Your task to perform on an android device: Search for razer huntsman on target.com, select the first entry, add it to the cart, then select checkout. Image 0: 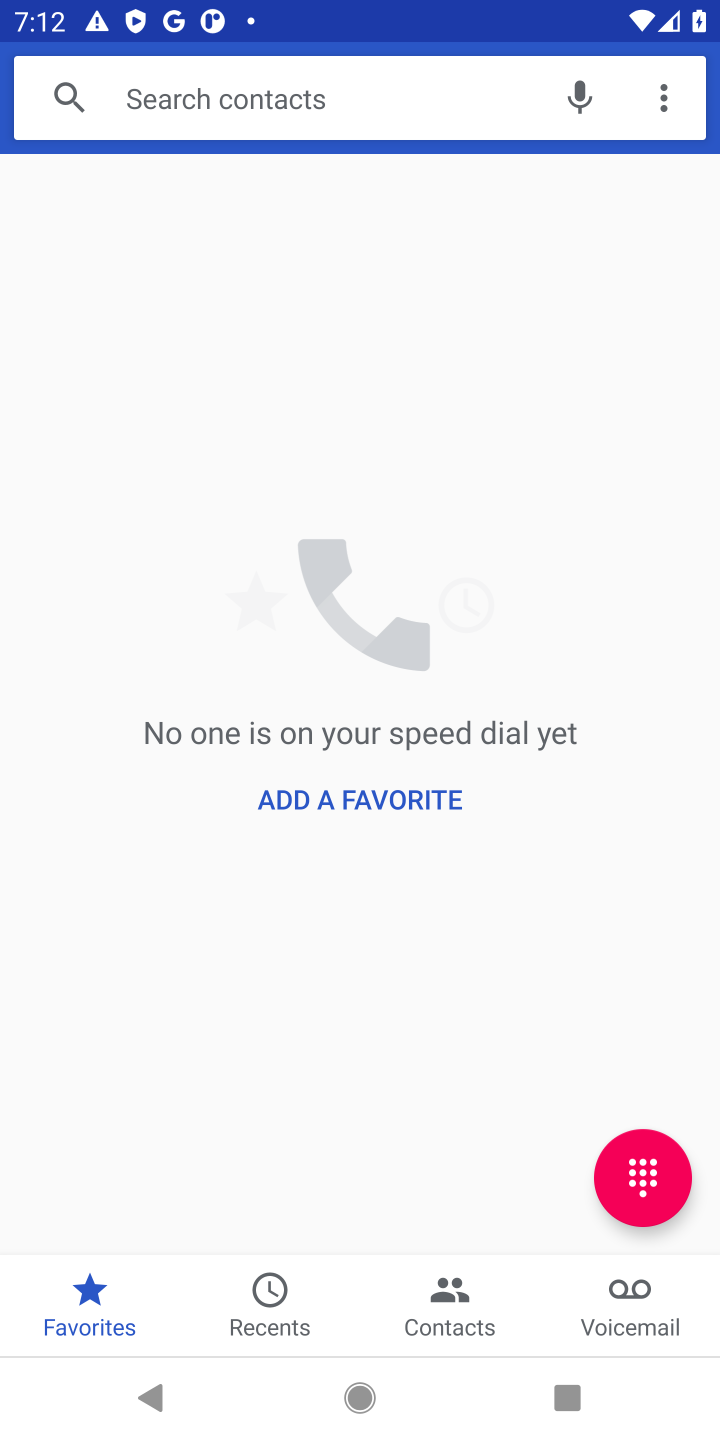
Step 0: press home button
Your task to perform on an android device: Search for razer huntsman on target.com, select the first entry, add it to the cart, then select checkout. Image 1: 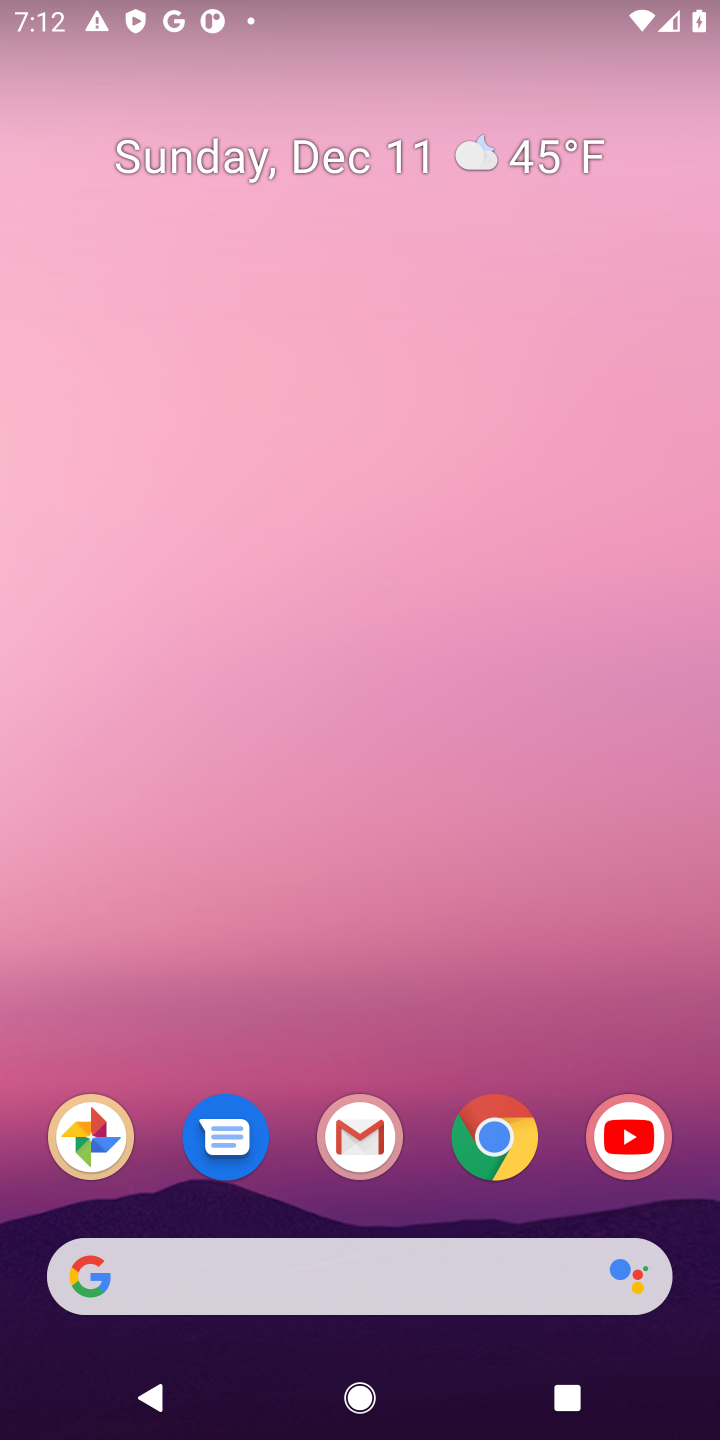
Step 1: click (469, 1155)
Your task to perform on an android device: Search for razer huntsman on target.com, select the first entry, add it to the cart, then select checkout. Image 2: 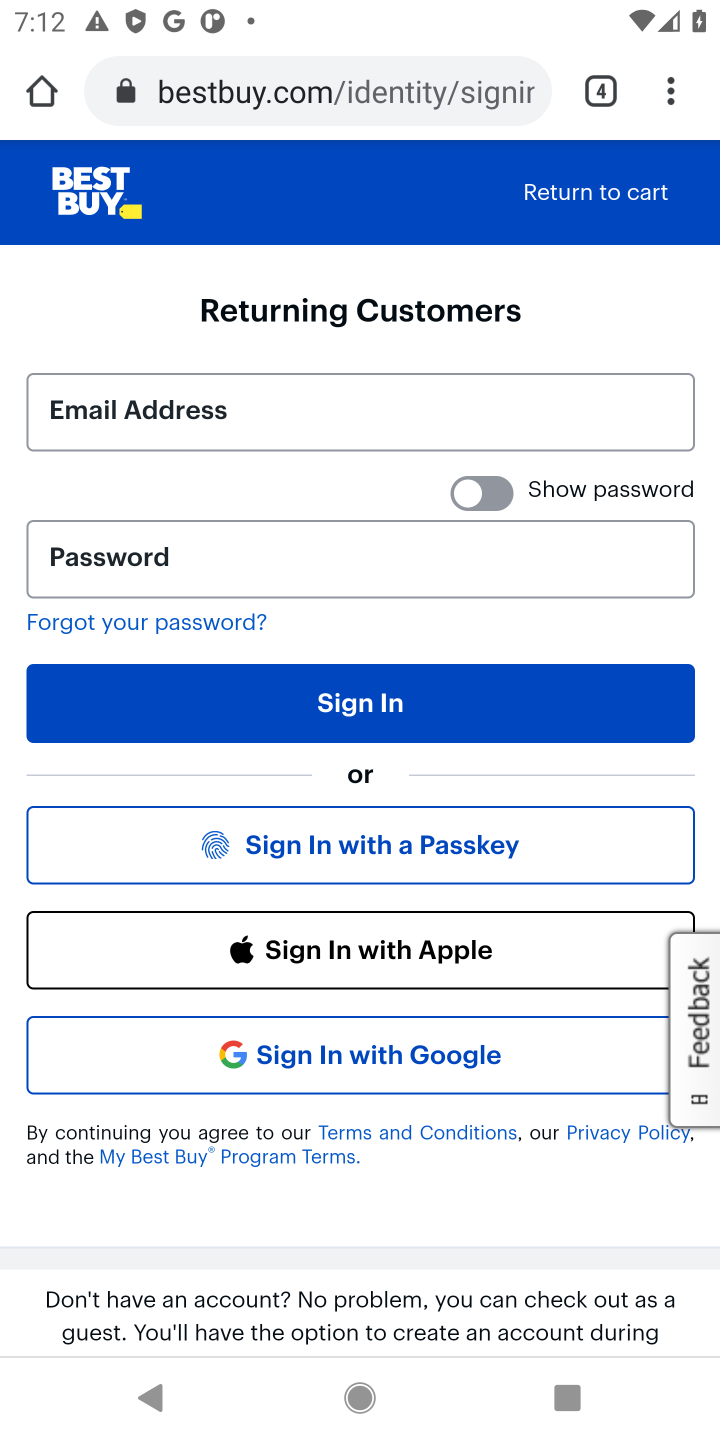
Step 2: click (246, 106)
Your task to perform on an android device: Search for razer huntsman on target.com, select the first entry, add it to the cart, then select checkout. Image 3: 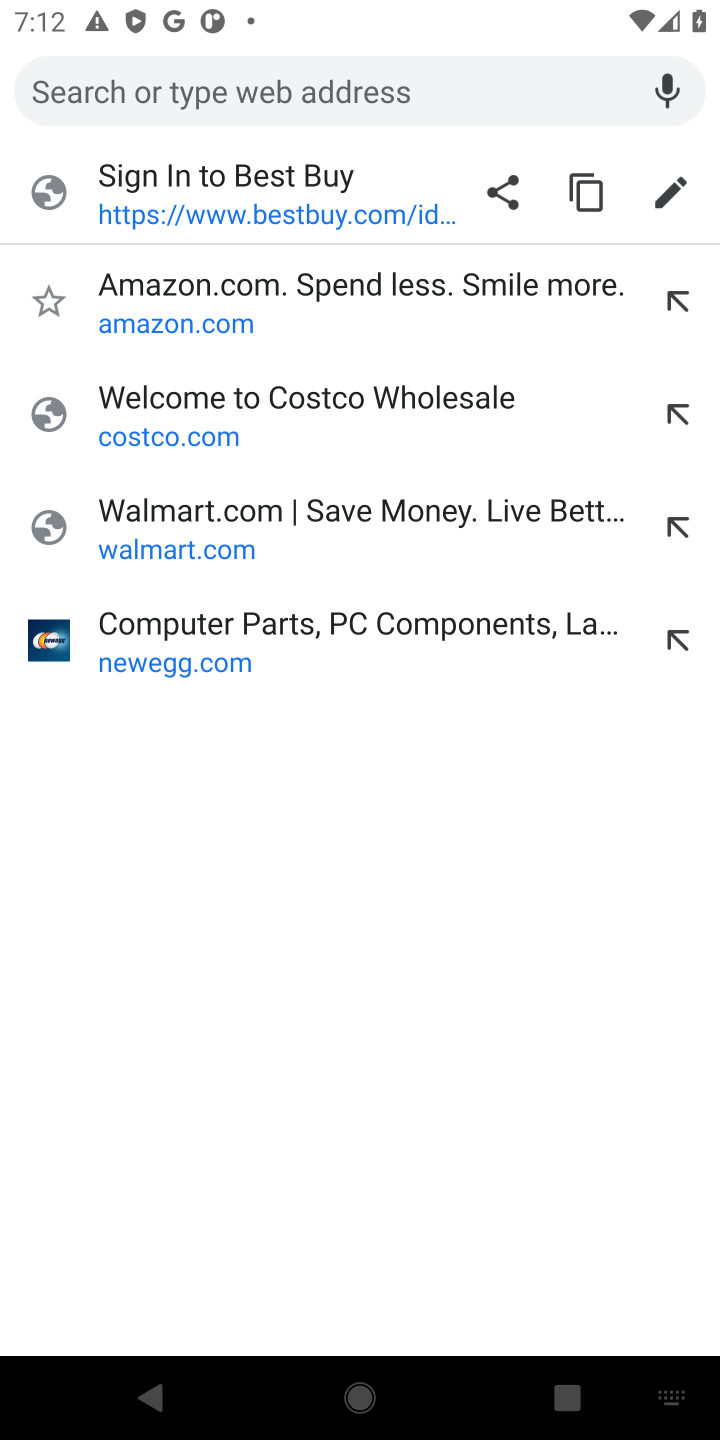
Step 3: type "target"
Your task to perform on an android device: Search for razer huntsman on target.com, select the first entry, add it to the cart, then select checkout. Image 4: 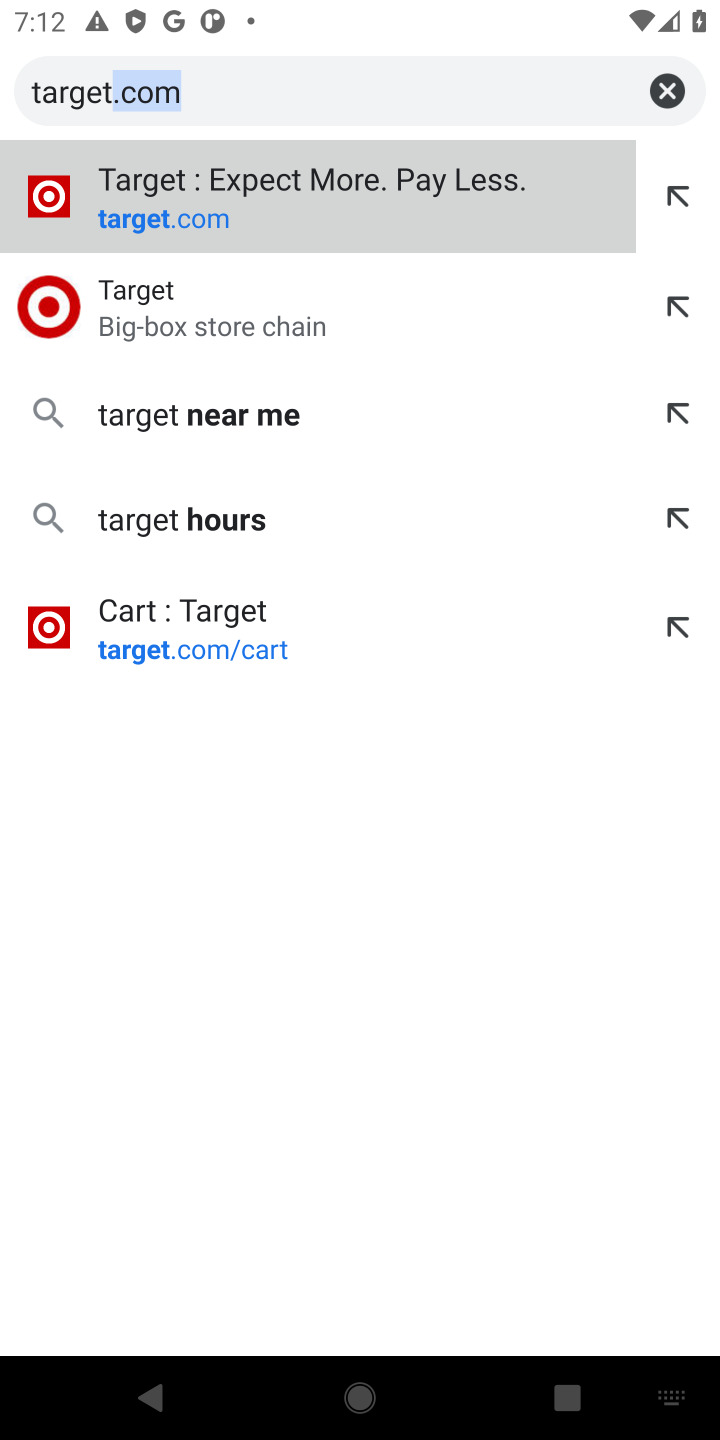
Step 4: click (527, 206)
Your task to perform on an android device: Search for razer huntsman on target.com, select the first entry, add it to the cart, then select checkout. Image 5: 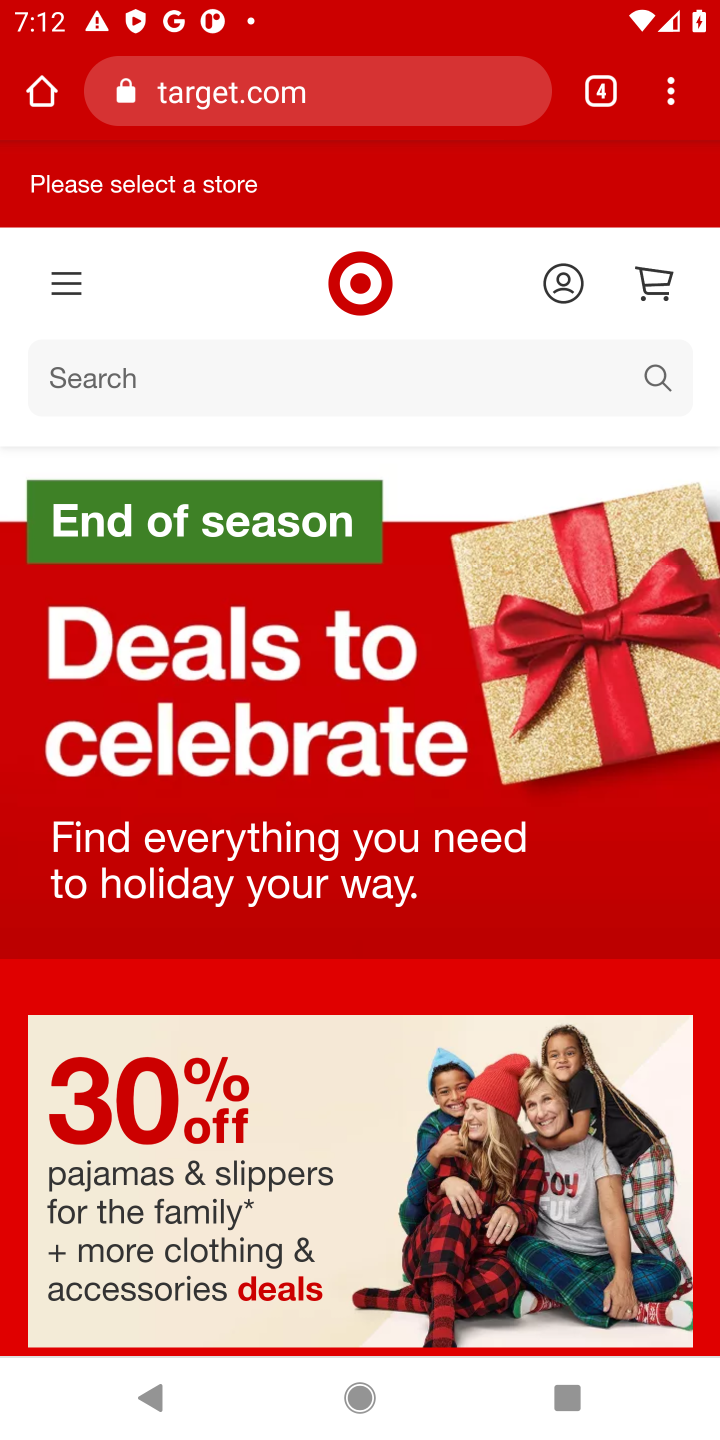
Step 5: click (399, 355)
Your task to perform on an android device: Search for razer huntsman on target.com, select the first entry, add it to the cart, then select checkout. Image 6: 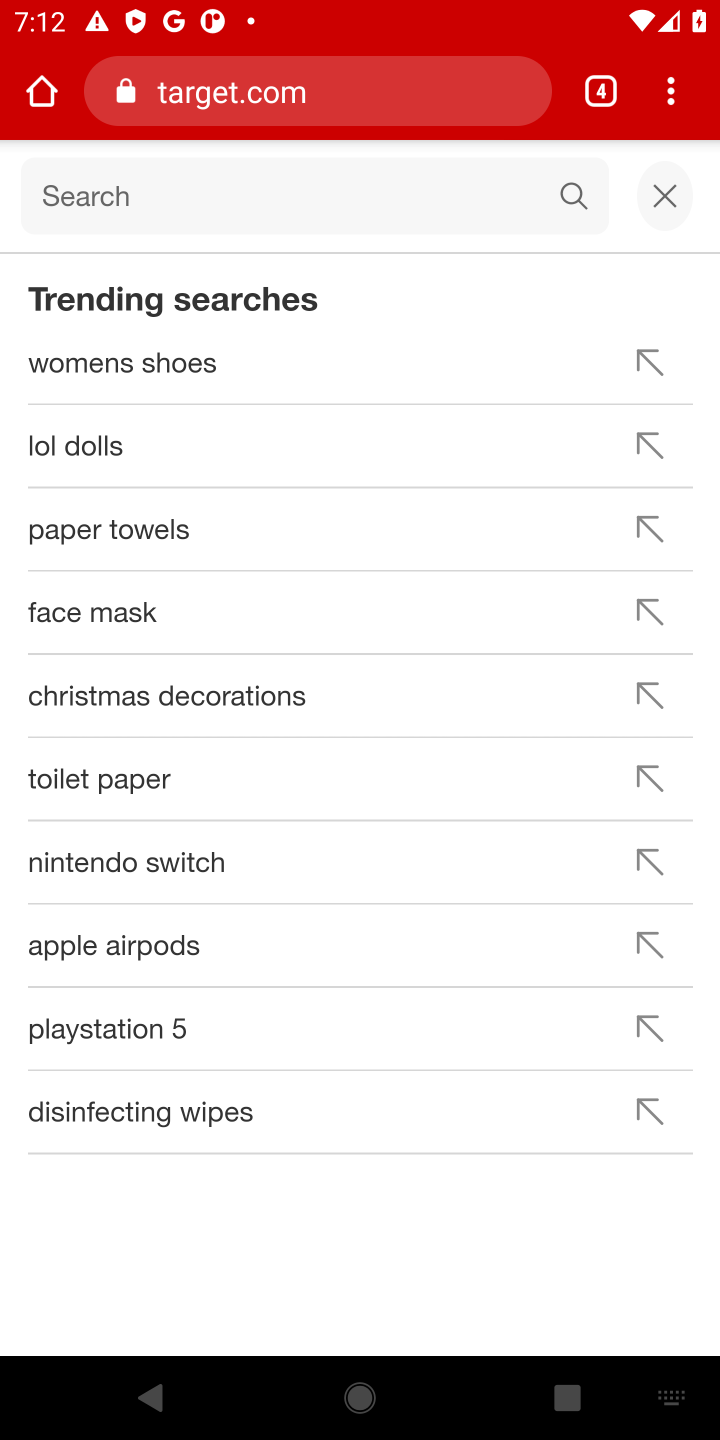
Step 6: type " razer huntsman"
Your task to perform on an android device: Search for razer huntsman on target.com, select the first entry, add it to the cart, then select checkout. Image 7: 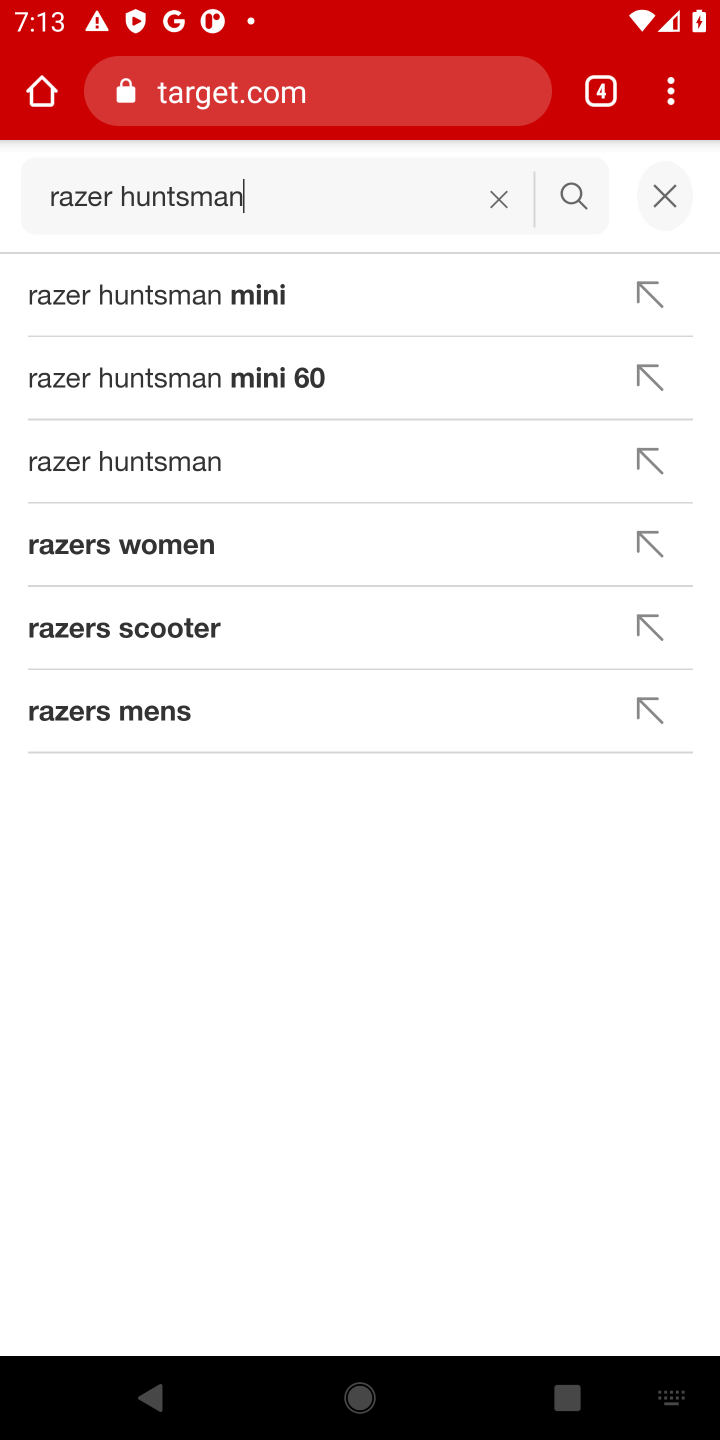
Step 7: click (551, 191)
Your task to perform on an android device: Search for razer huntsman on target.com, select the first entry, add it to the cart, then select checkout. Image 8: 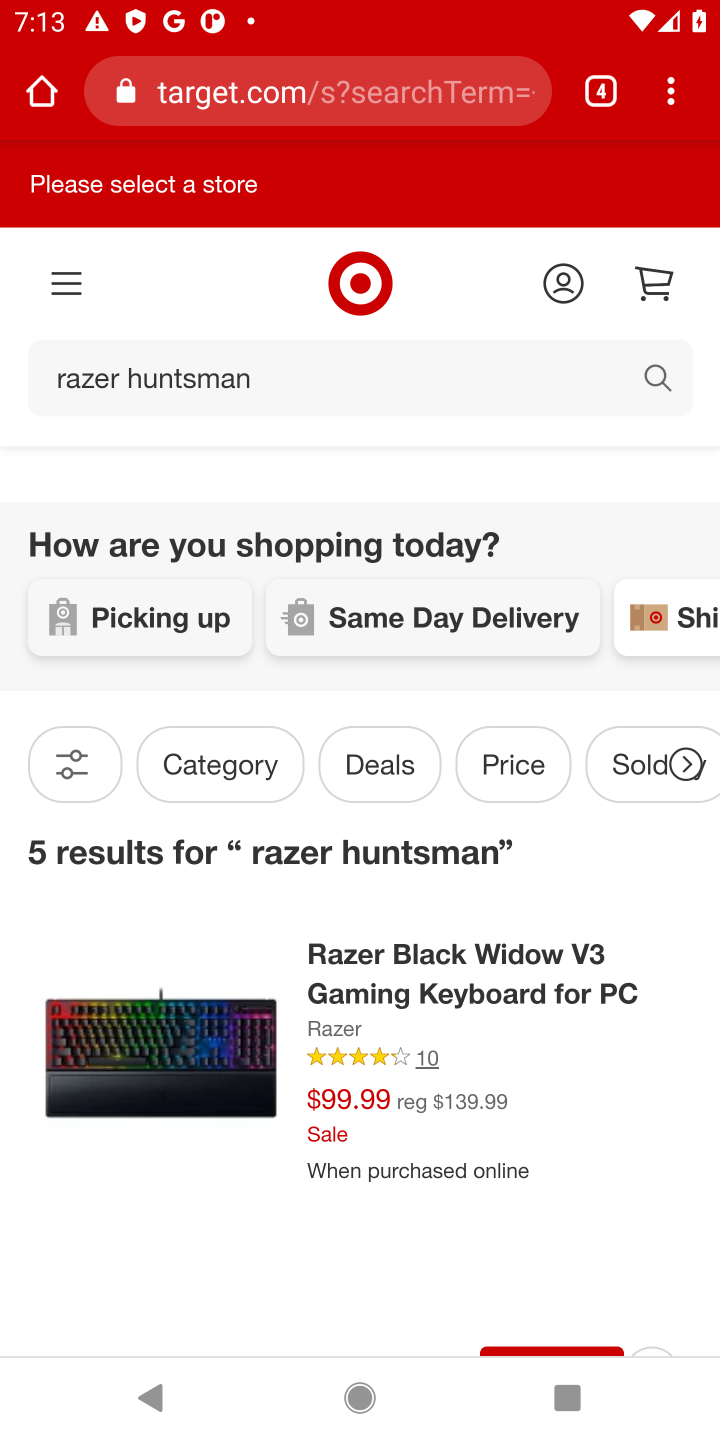
Step 8: drag from (489, 1005) to (573, 357)
Your task to perform on an android device: Search for razer huntsman on target.com, select the first entry, add it to the cart, then select checkout. Image 9: 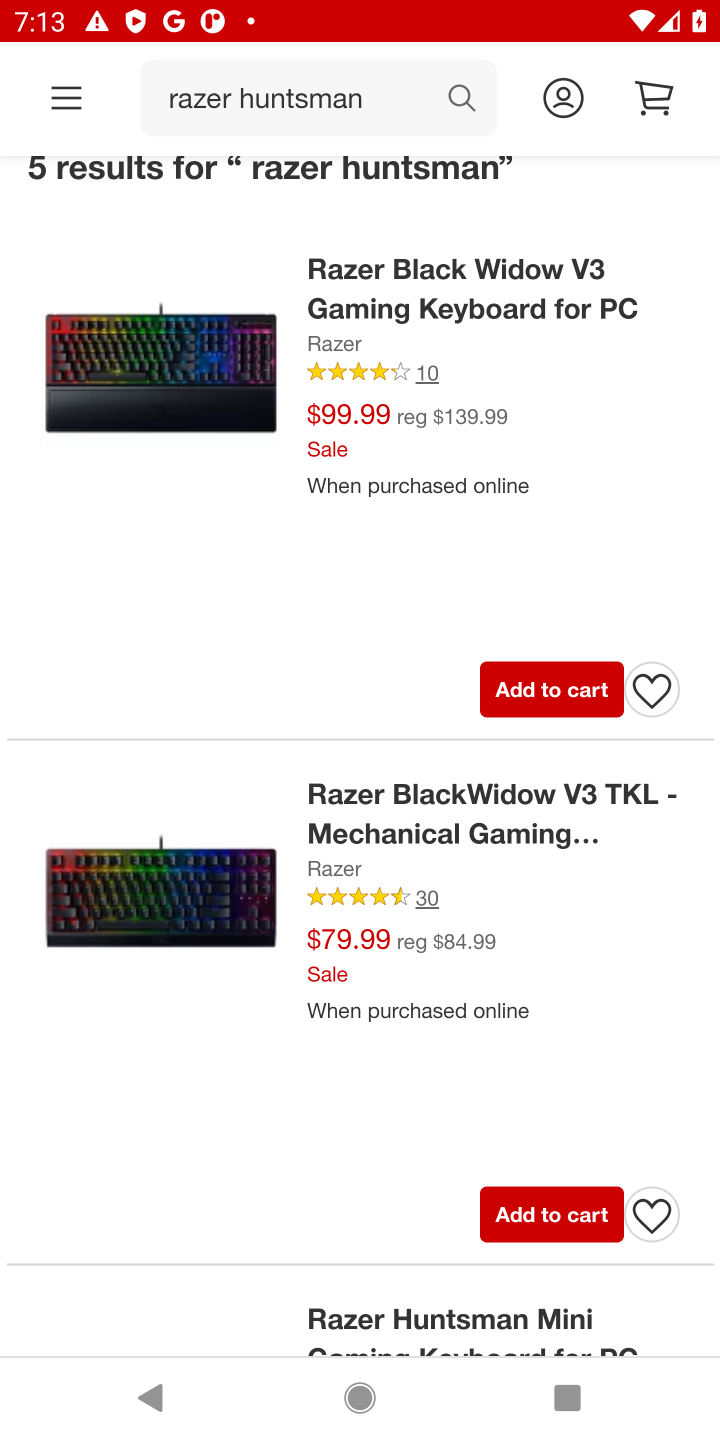
Step 9: drag from (418, 1291) to (334, 458)
Your task to perform on an android device: Search for razer huntsman on target.com, select the first entry, add it to the cart, then select checkout. Image 10: 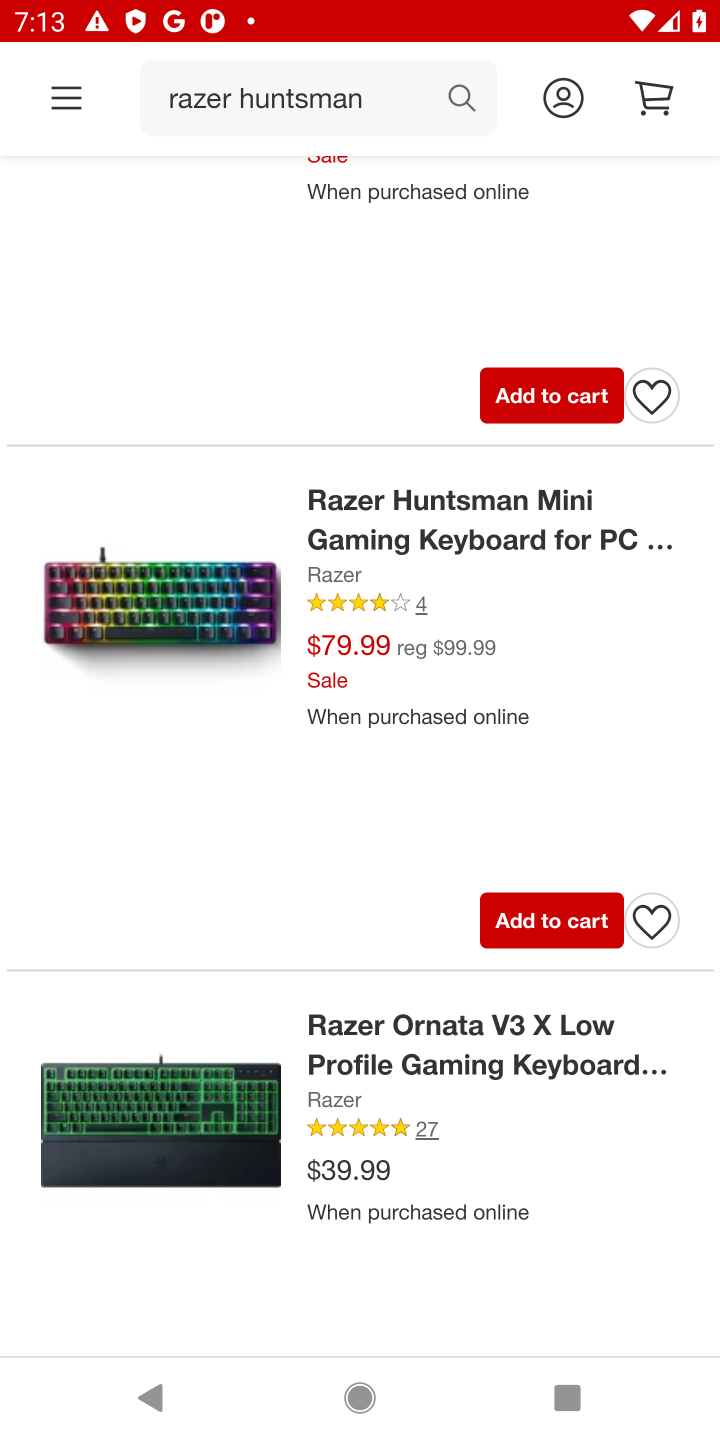
Step 10: click (582, 912)
Your task to perform on an android device: Search for razer huntsman on target.com, select the first entry, add it to the cart, then select checkout. Image 11: 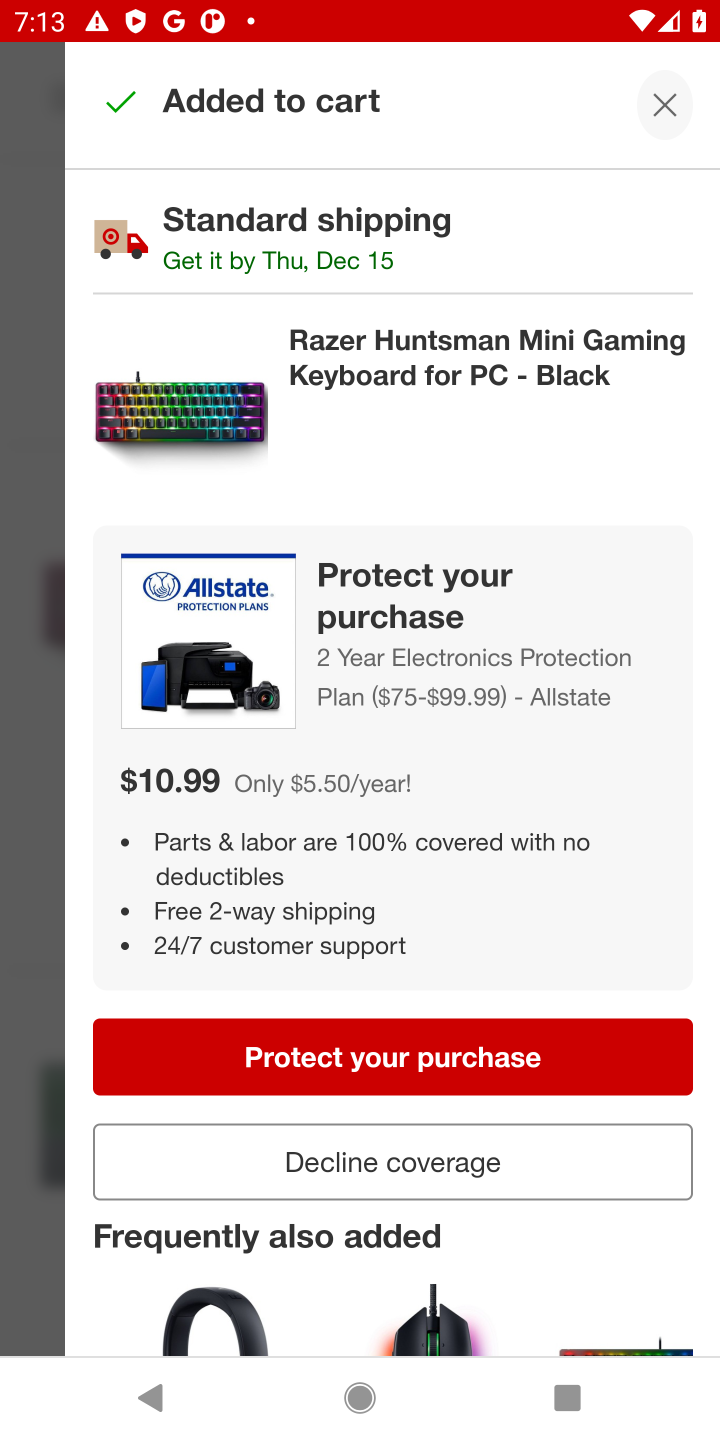
Step 11: click (675, 92)
Your task to perform on an android device: Search for razer huntsman on target.com, select the first entry, add it to the cart, then select checkout. Image 12: 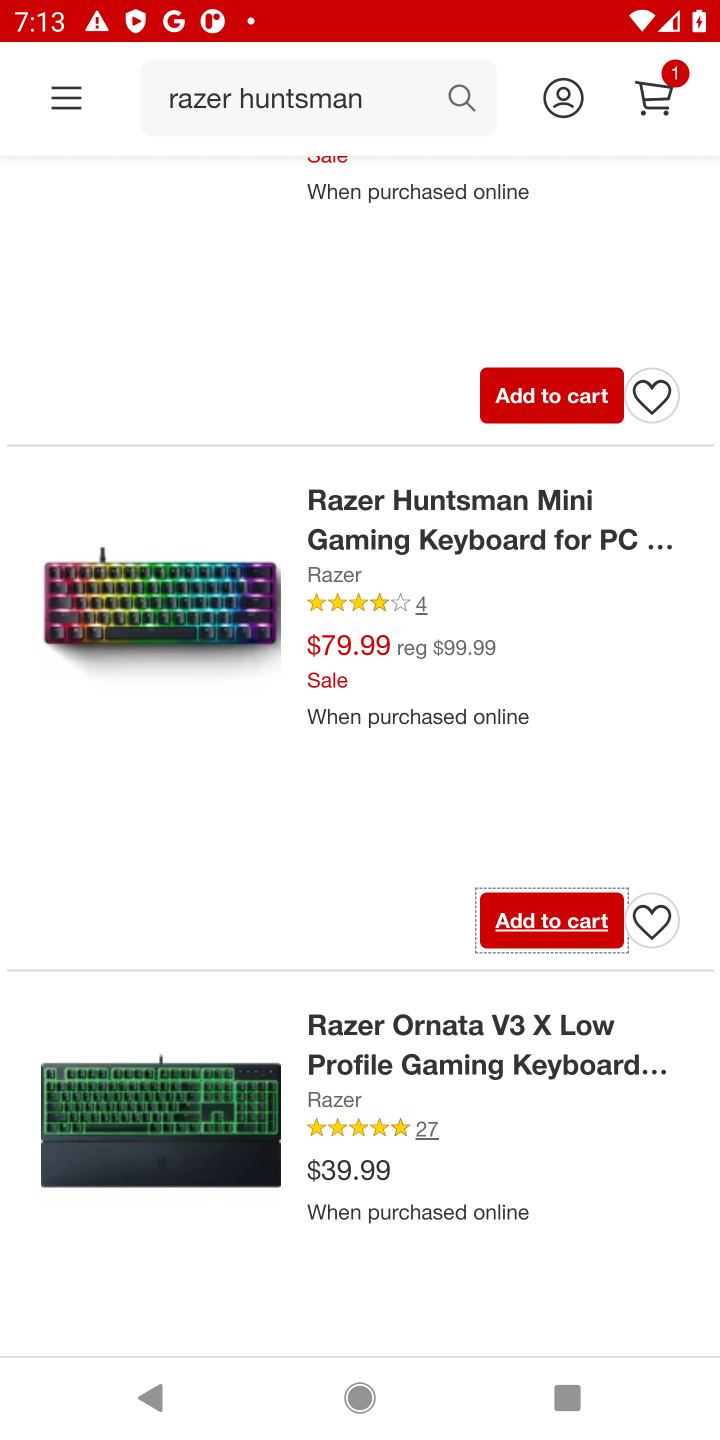
Step 12: click (675, 92)
Your task to perform on an android device: Search for razer huntsman on target.com, select the first entry, add it to the cart, then select checkout. Image 13: 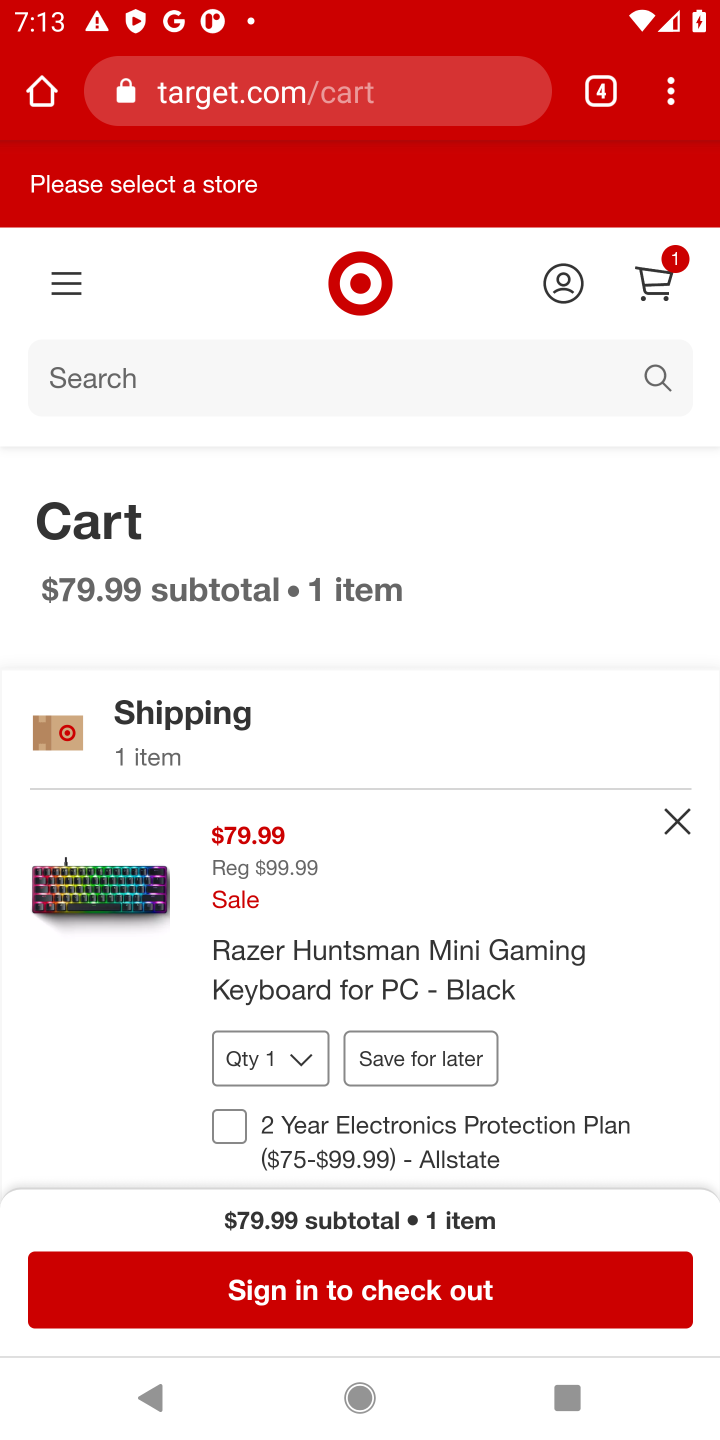
Step 13: click (174, 1277)
Your task to perform on an android device: Search for razer huntsman on target.com, select the first entry, add it to the cart, then select checkout. Image 14: 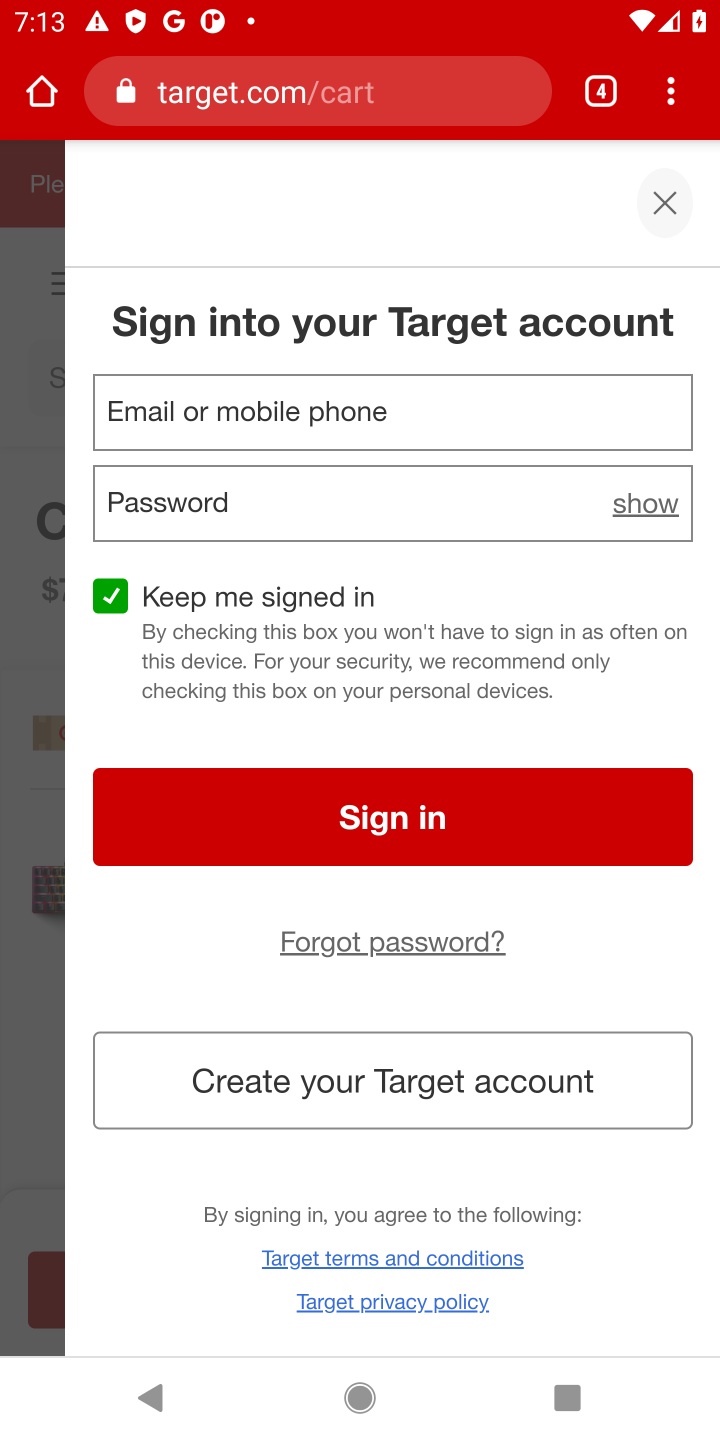
Step 14: task complete